Your task to perform on an android device: Turn on the flashlight Image 0: 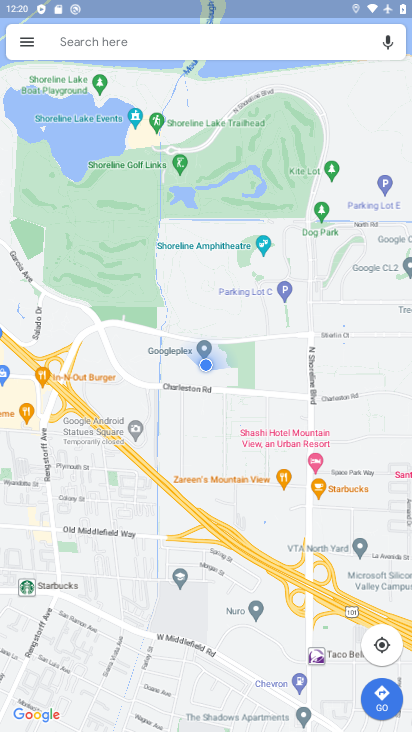
Step 0: press home button
Your task to perform on an android device: Turn on the flashlight Image 1: 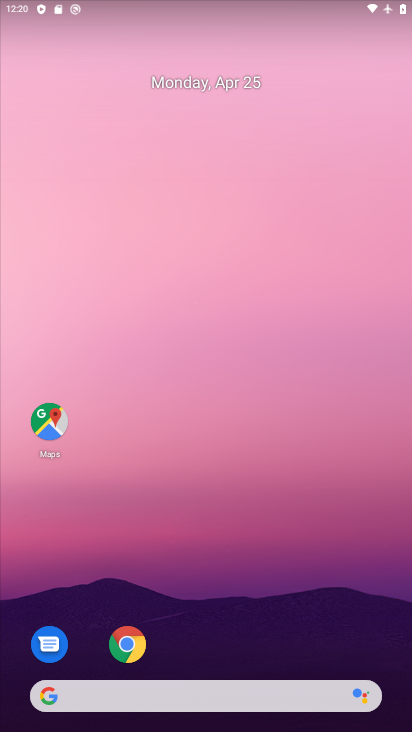
Step 1: drag from (214, 632) to (43, 4)
Your task to perform on an android device: Turn on the flashlight Image 2: 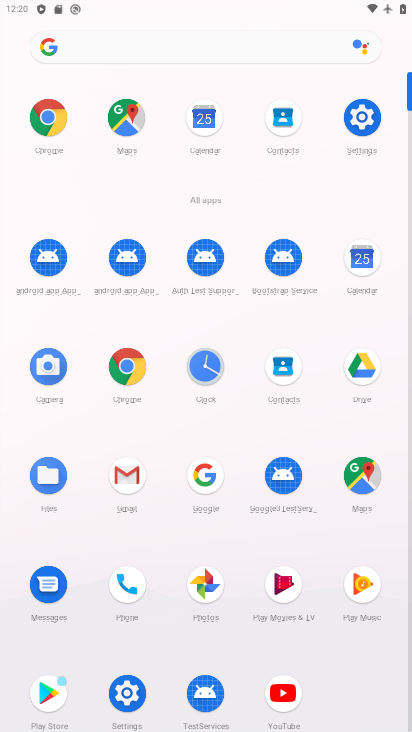
Step 2: click (129, 701)
Your task to perform on an android device: Turn on the flashlight Image 3: 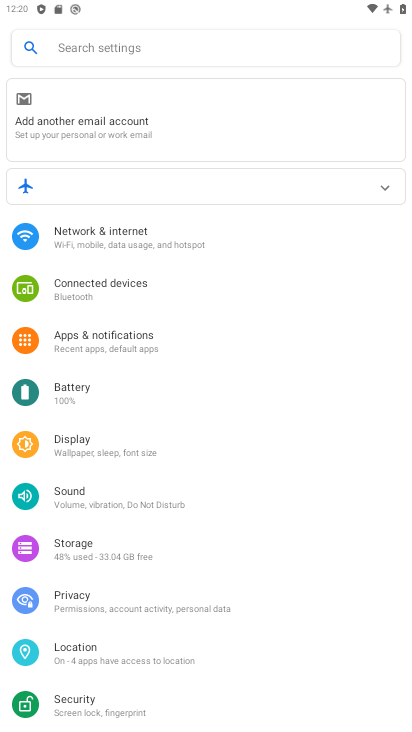
Step 3: task complete